Your task to perform on an android device: Clear the shopping cart on costco.com. Image 0: 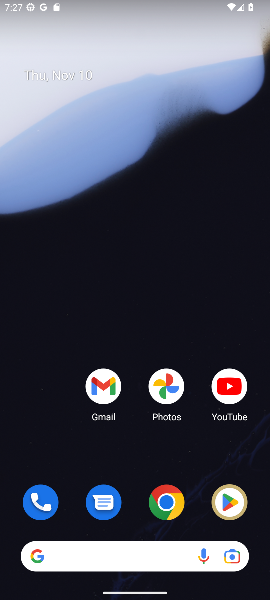
Step 0: click (130, 551)
Your task to perform on an android device: Clear the shopping cart on costco.com. Image 1: 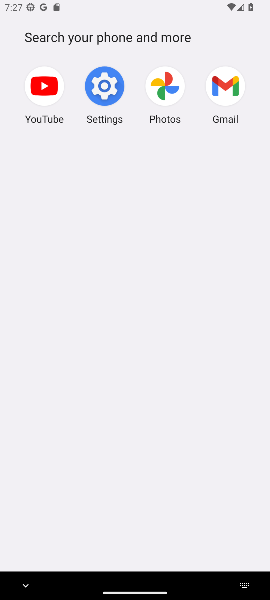
Step 1: press home button
Your task to perform on an android device: Clear the shopping cart on costco.com. Image 2: 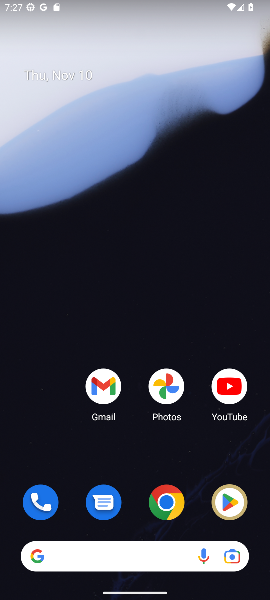
Step 2: drag from (134, 519) to (134, 326)
Your task to perform on an android device: Clear the shopping cart on costco.com. Image 3: 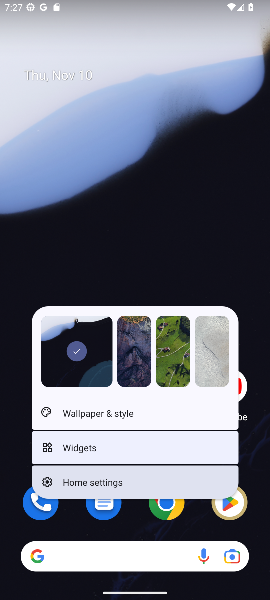
Step 3: click (139, 523)
Your task to perform on an android device: Clear the shopping cart on costco.com. Image 4: 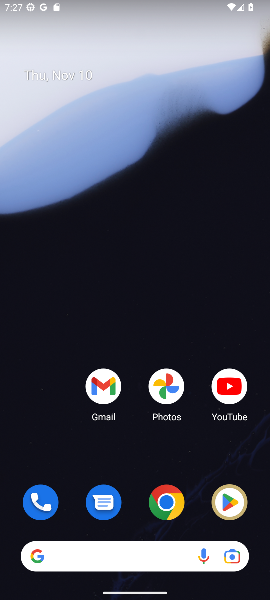
Step 4: drag from (139, 522) to (118, 142)
Your task to perform on an android device: Clear the shopping cart on costco.com. Image 5: 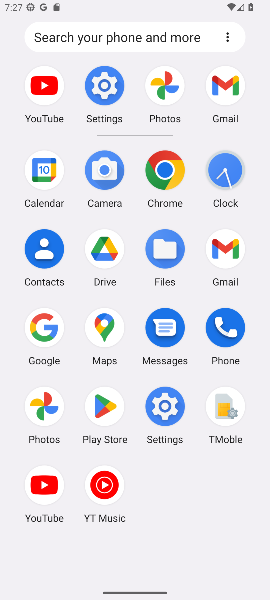
Step 5: click (34, 338)
Your task to perform on an android device: Clear the shopping cart on costco.com. Image 6: 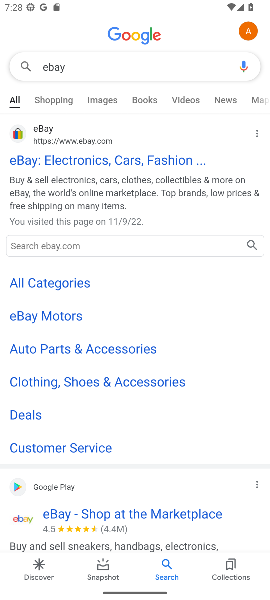
Step 6: click (99, 56)
Your task to perform on an android device: Clear the shopping cart on costco.com. Image 7: 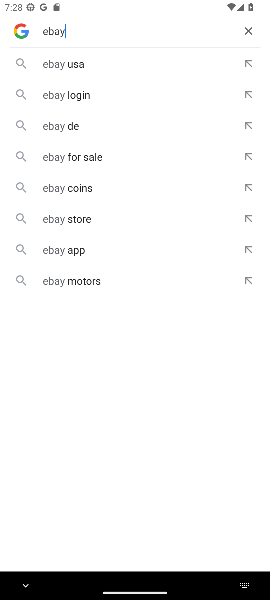
Step 7: click (247, 34)
Your task to perform on an android device: Clear the shopping cart on costco.com. Image 8: 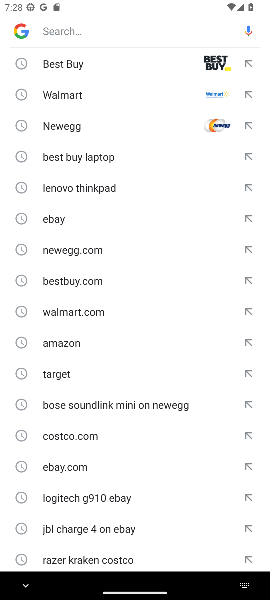
Step 8: type "costco.com."
Your task to perform on an android device: Clear the shopping cart on costco.com. Image 9: 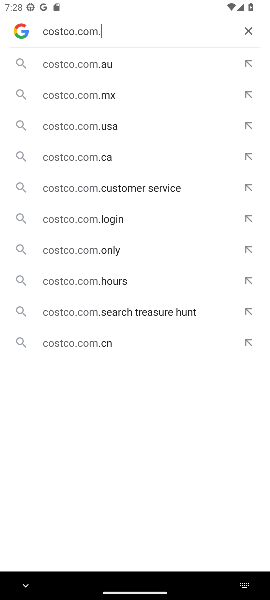
Step 9: click (72, 124)
Your task to perform on an android device: Clear the shopping cart on costco.com. Image 10: 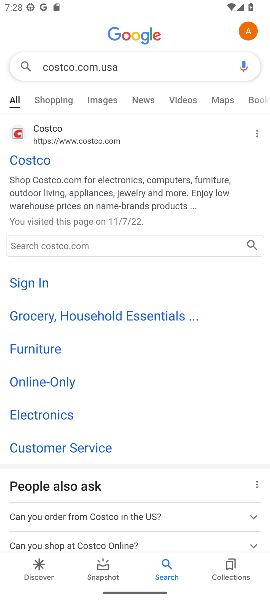
Step 10: click (19, 162)
Your task to perform on an android device: Clear the shopping cart on costco.com. Image 11: 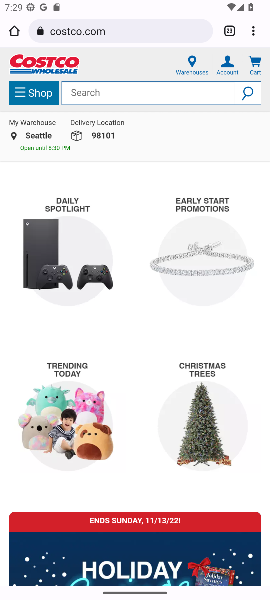
Step 11: click (253, 59)
Your task to perform on an android device: Clear the shopping cart on costco.com. Image 12: 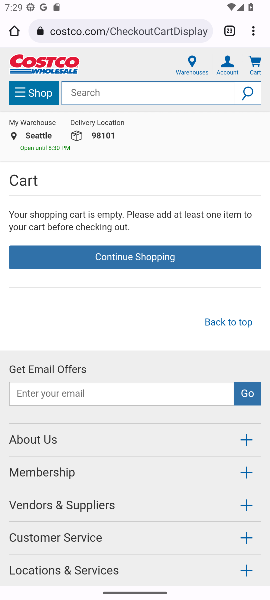
Step 12: click (253, 68)
Your task to perform on an android device: Clear the shopping cart on costco.com. Image 13: 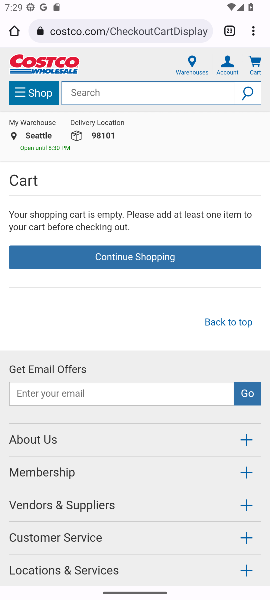
Step 13: task complete